Your task to perform on an android device: search for starred emails in the gmail app Image 0: 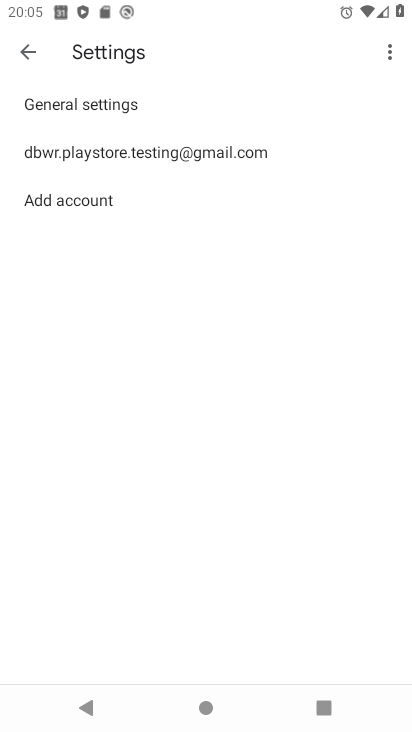
Step 0: click (16, 54)
Your task to perform on an android device: search for starred emails in the gmail app Image 1: 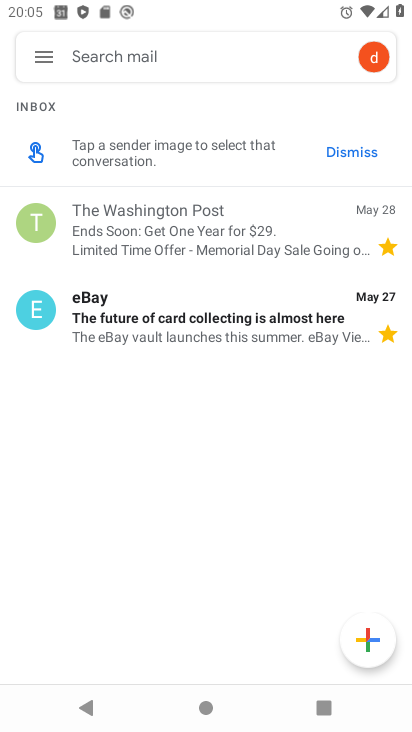
Step 1: click (40, 55)
Your task to perform on an android device: search for starred emails in the gmail app Image 2: 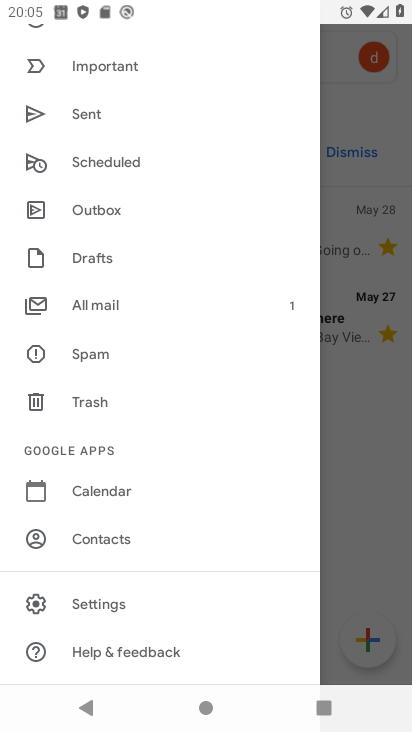
Step 2: drag from (236, 139) to (239, 424)
Your task to perform on an android device: search for starred emails in the gmail app Image 3: 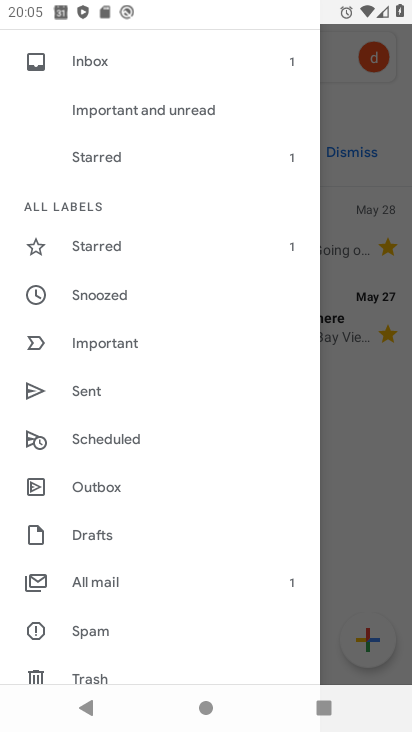
Step 3: click (102, 62)
Your task to perform on an android device: search for starred emails in the gmail app Image 4: 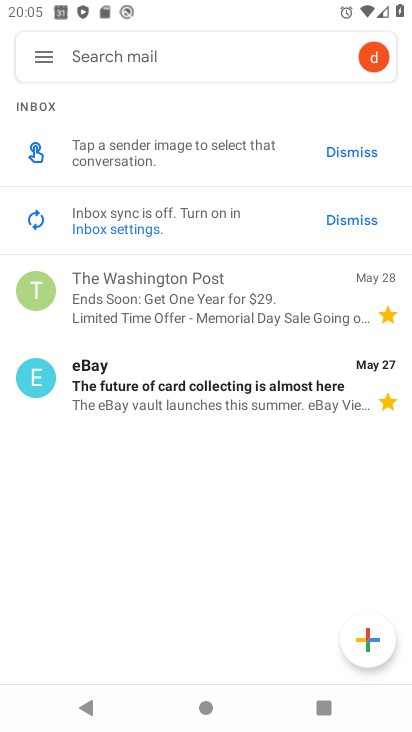
Step 4: task complete